Your task to perform on an android device: Open the map Image 0: 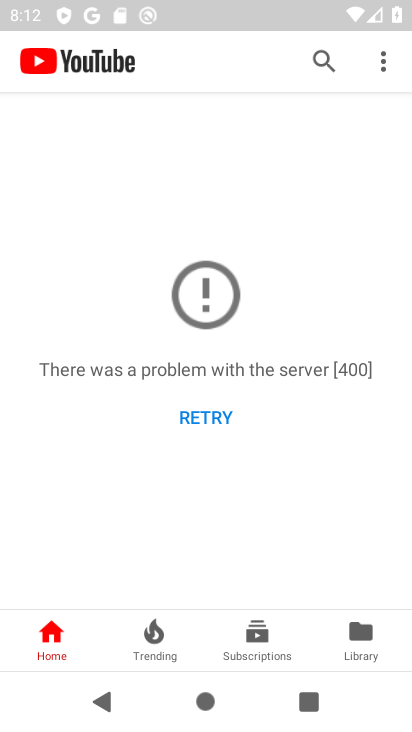
Step 0: press home button
Your task to perform on an android device: Open the map Image 1: 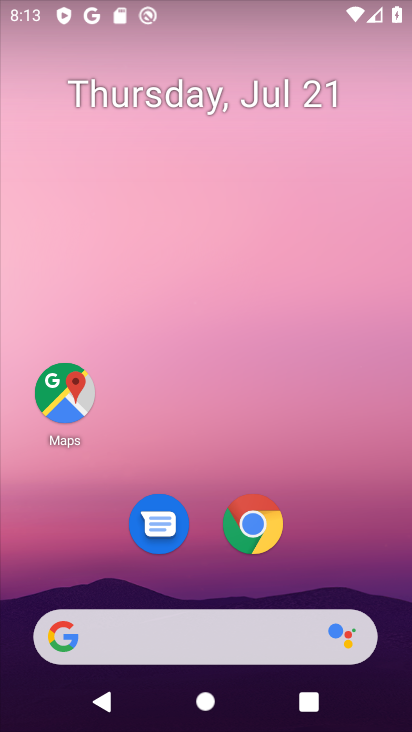
Step 1: click (67, 396)
Your task to perform on an android device: Open the map Image 2: 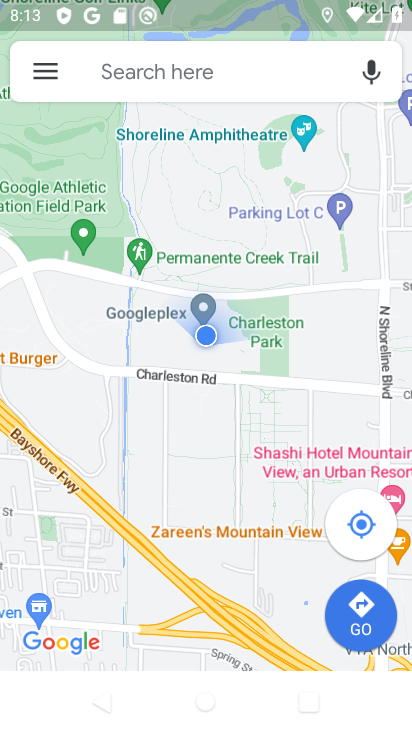
Step 2: task complete